Your task to perform on an android device: change text size in settings app Image 0: 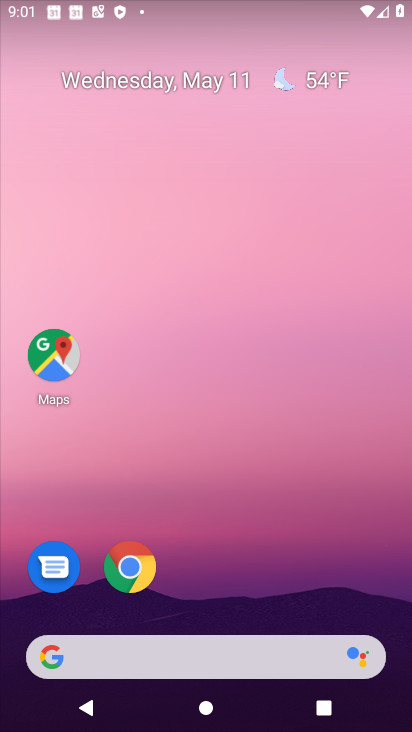
Step 0: drag from (202, 610) to (217, 42)
Your task to perform on an android device: change text size in settings app Image 1: 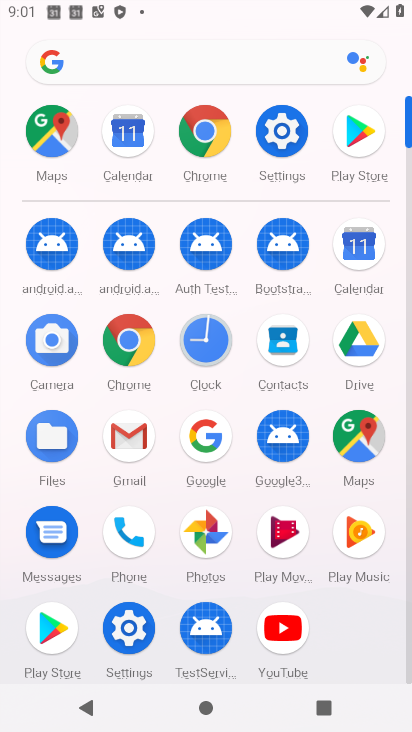
Step 1: click (273, 156)
Your task to perform on an android device: change text size in settings app Image 2: 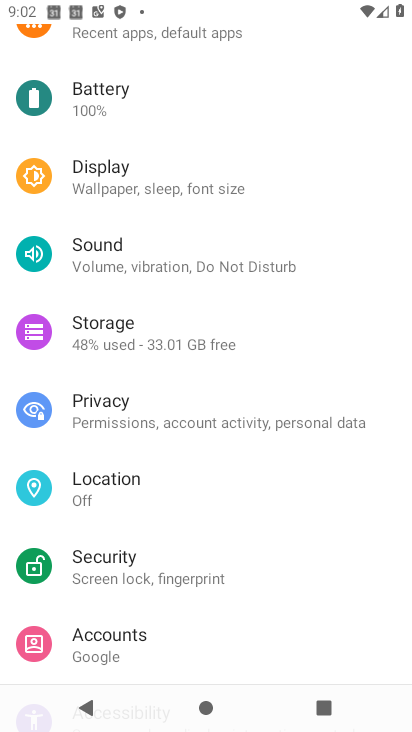
Step 2: drag from (120, 566) to (146, 248)
Your task to perform on an android device: change text size in settings app Image 3: 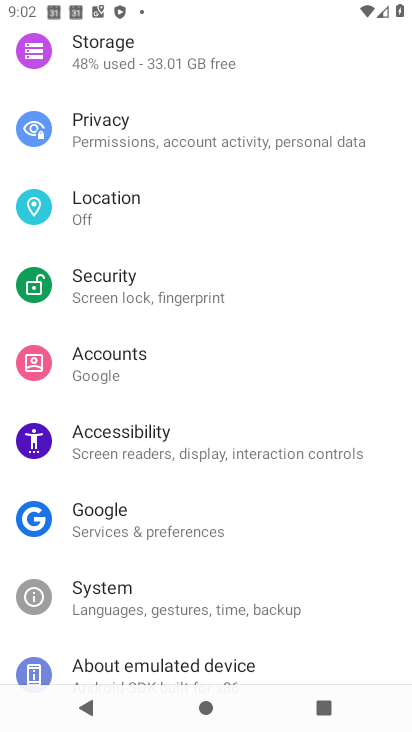
Step 3: drag from (121, 323) to (131, 541)
Your task to perform on an android device: change text size in settings app Image 4: 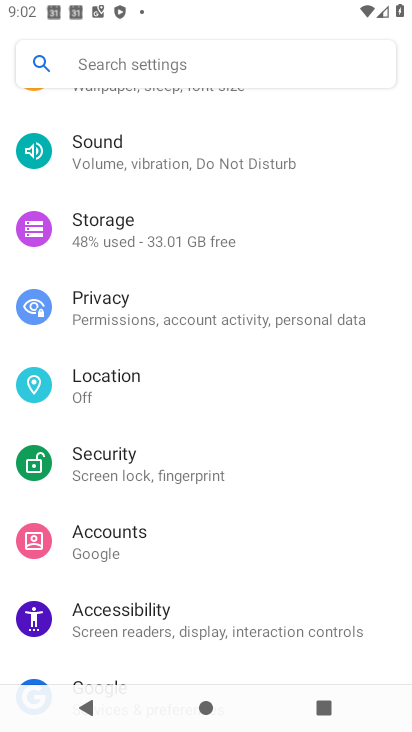
Step 4: drag from (142, 194) to (169, 656)
Your task to perform on an android device: change text size in settings app Image 5: 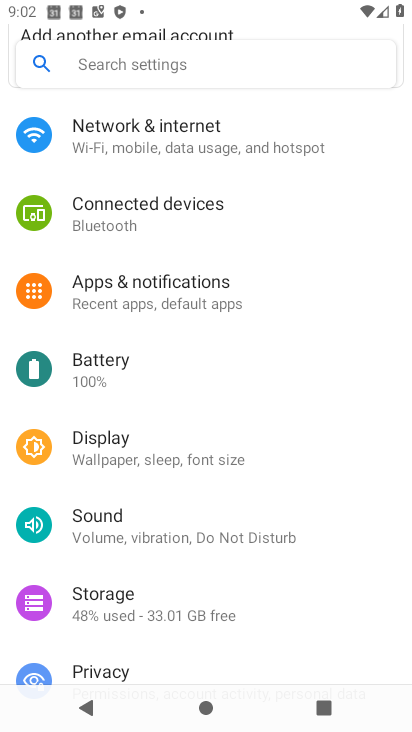
Step 5: click (123, 456)
Your task to perform on an android device: change text size in settings app Image 6: 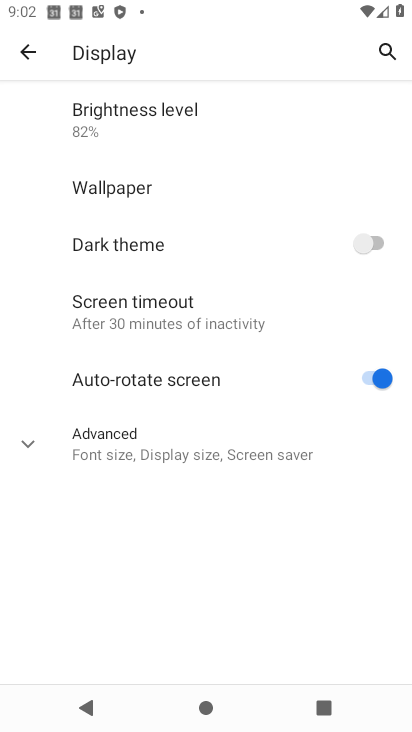
Step 6: click (120, 451)
Your task to perform on an android device: change text size in settings app Image 7: 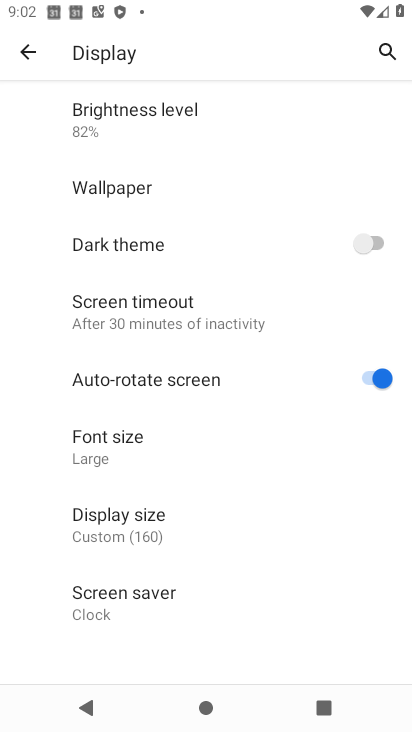
Step 7: click (116, 454)
Your task to perform on an android device: change text size in settings app Image 8: 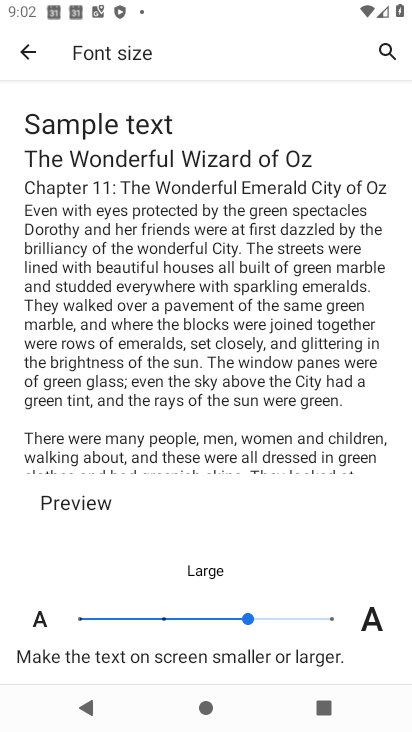
Step 8: click (132, 612)
Your task to perform on an android device: change text size in settings app Image 9: 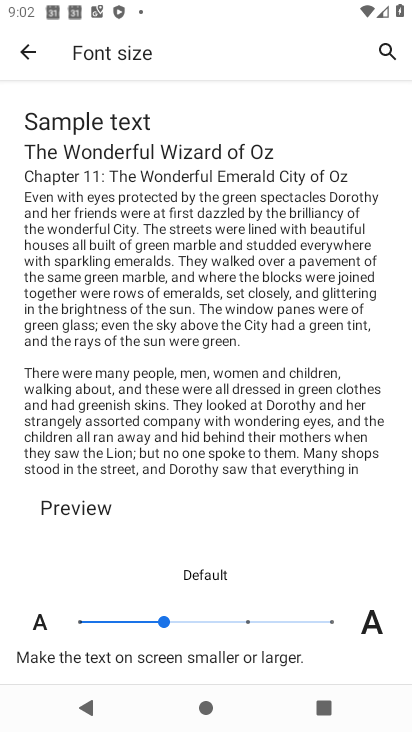
Step 9: task complete